Your task to perform on an android device: open chrome privacy settings Image 0: 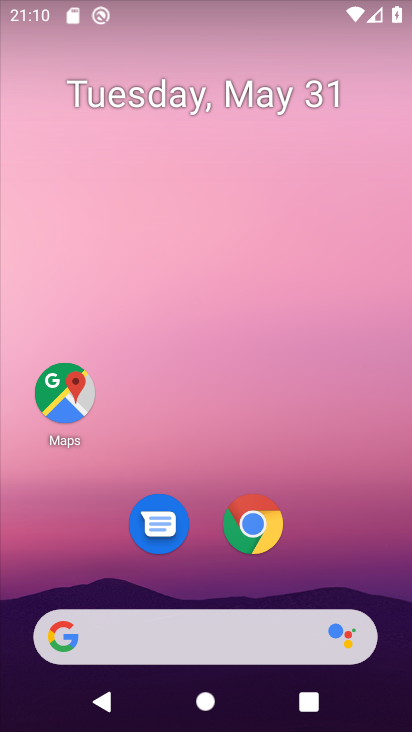
Step 0: click (269, 529)
Your task to perform on an android device: open chrome privacy settings Image 1: 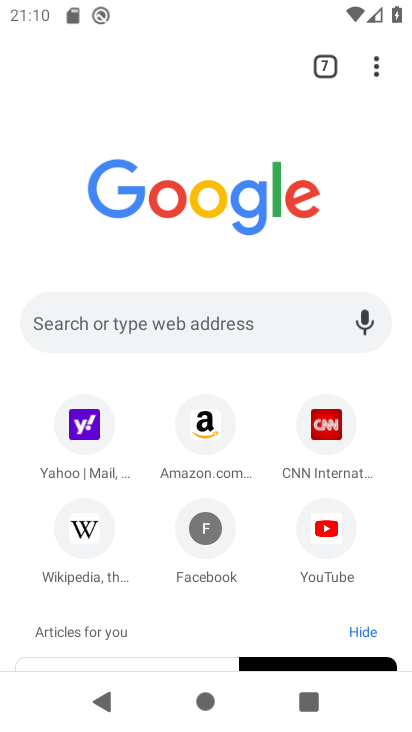
Step 1: click (369, 65)
Your task to perform on an android device: open chrome privacy settings Image 2: 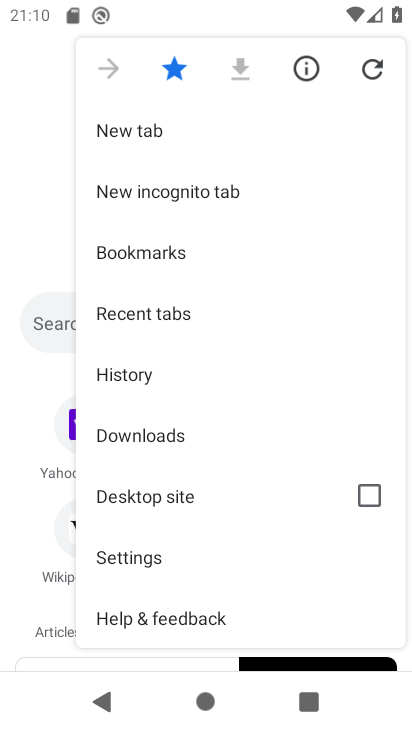
Step 2: click (198, 552)
Your task to perform on an android device: open chrome privacy settings Image 3: 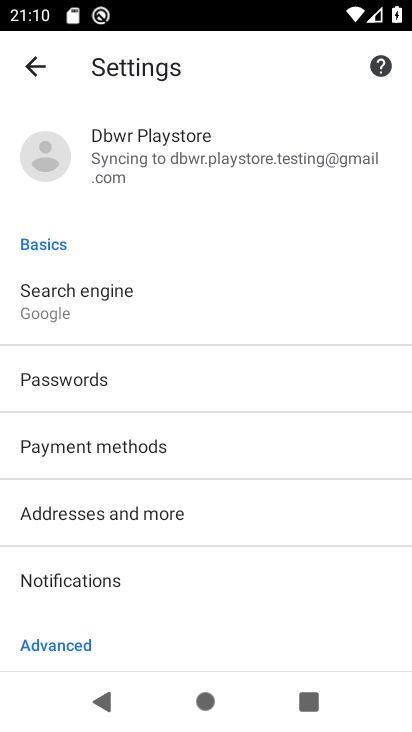
Step 3: drag from (246, 435) to (294, 259)
Your task to perform on an android device: open chrome privacy settings Image 4: 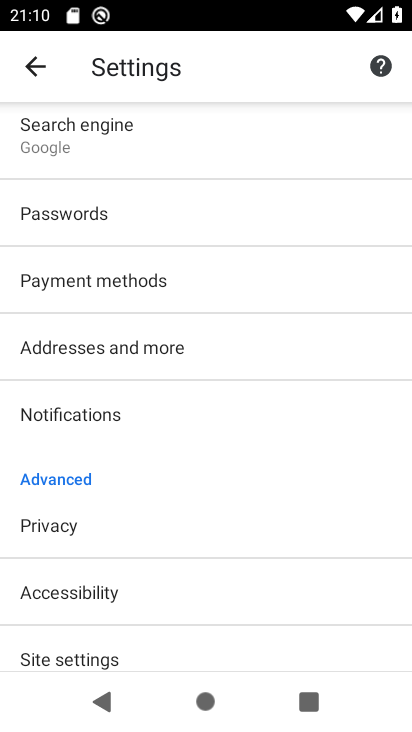
Step 4: click (71, 532)
Your task to perform on an android device: open chrome privacy settings Image 5: 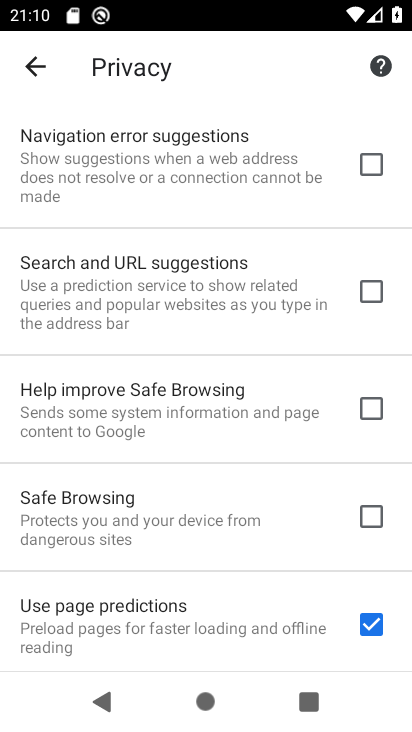
Step 5: task complete